Your task to perform on an android device: install app "NewsBreak: Local News & Alerts" Image 0: 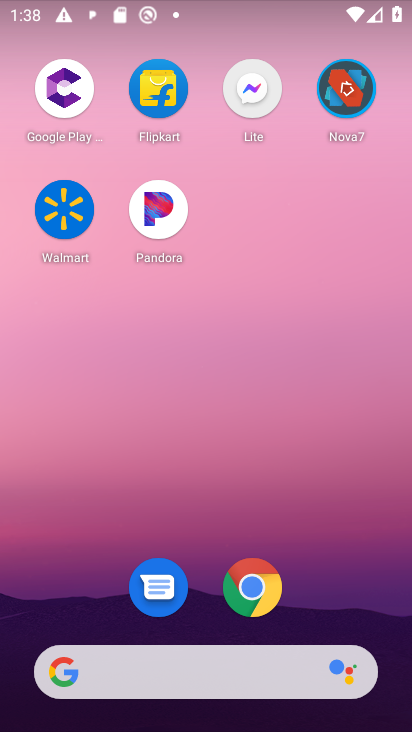
Step 0: drag from (146, 695) to (197, 4)
Your task to perform on an android device: install app "NewsBreak: Local News & Alerts" Image 1: 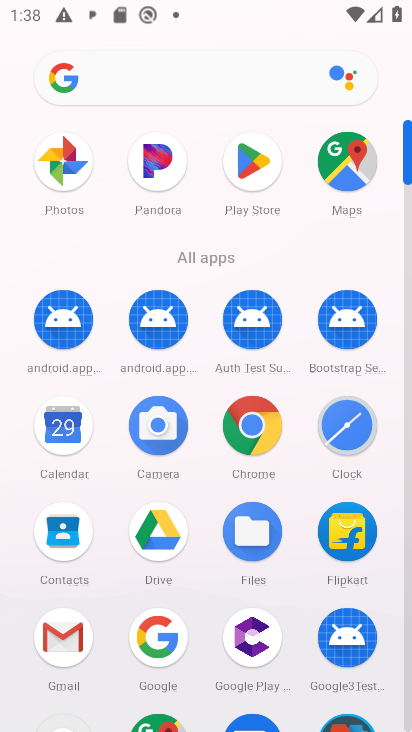
Step 1: click (251, 170)
Your task to perform on an android device: install app "NewsBreak: Local News & Alerts" Image 2: 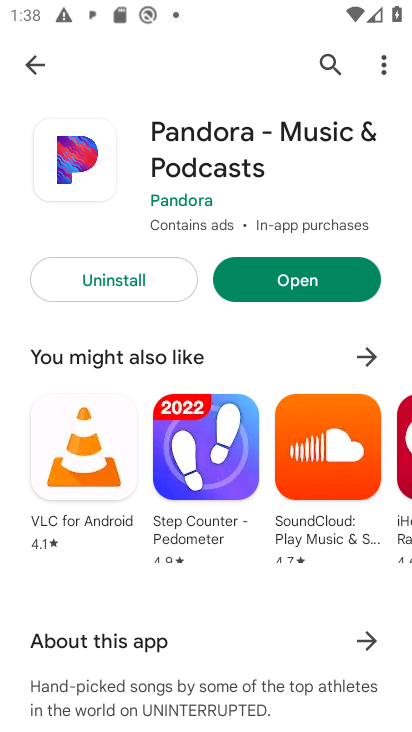
Step 2: click (317, 57)
Your task to perform on an android device: install app "NewsBreak: Local News & Alerts" Image 3: 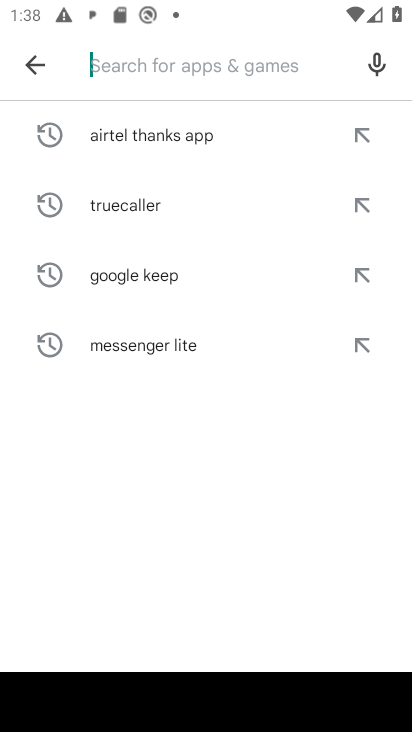
Step 3: type "NewsBreak: Local News & Alert"
Your task to perform on an android device: install app "NewsBreak: Local News & Alerts" Image 4: 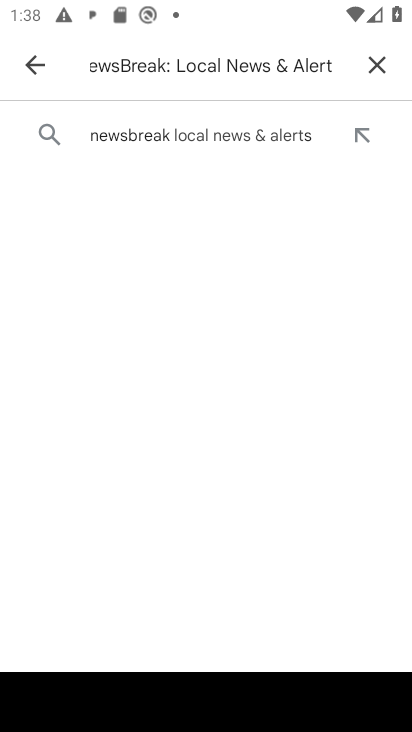
Step 4: click (240, 135)
Your task to perform on an android device: install app "NewsBreak: Local News & Alerts" Image 5: 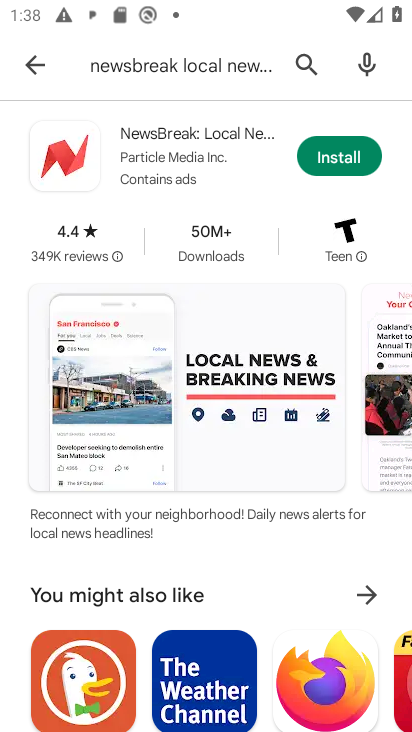
Step 5: click (373, 142)
Your task to perform on an android device: install app "NewsBreak: Local News & Alerts" Image 6: 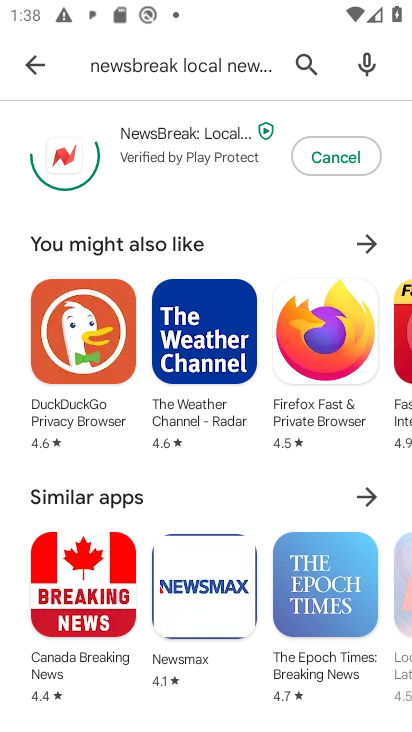
Step 6: click (360, 151)
Your task to perform on an android device: install app "NewsBreak: Local News & Alerts" Image 7: 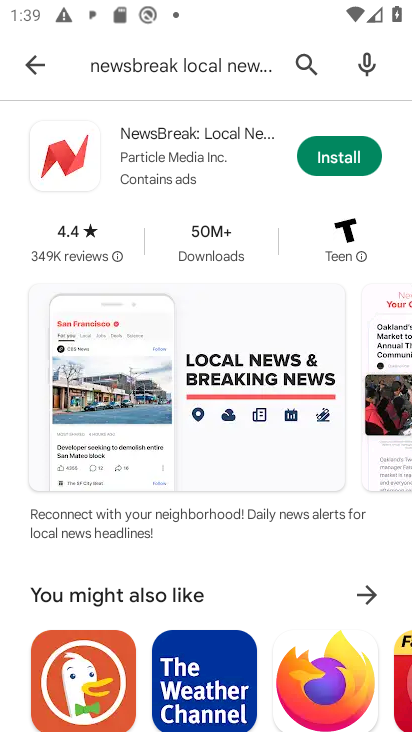
Step 7: click (359, 148)
Your task to perform on an android device: install app "NewsBreak: Local News & Alerts" Image 8: 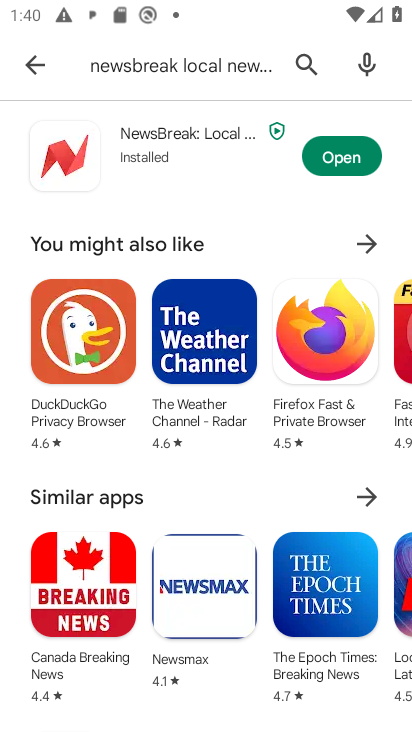
Step 8: task complete